Your task to perform on an android device: Show me popular videos on Youtube Image 0: 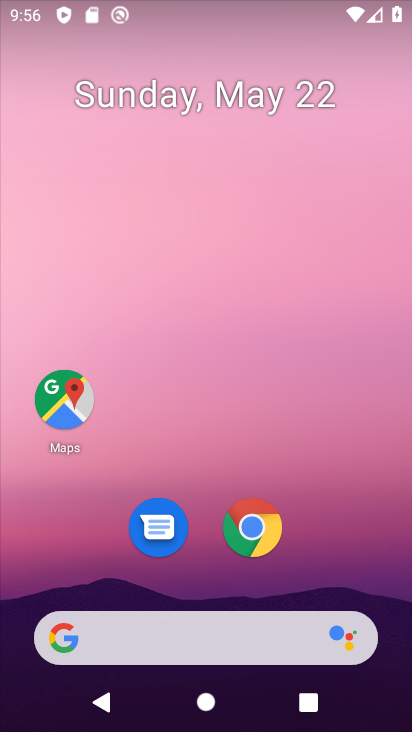
Step 0: drag from (362, 565) to (341, 139)
Your task to perform on an android device: Show me popular videos on Youtube Image 1: 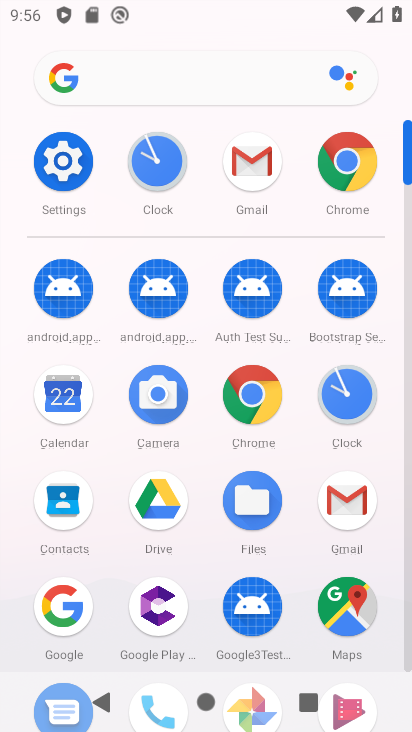
Step 1: click (409, 666)
Your task to perform on an android device: Show me popular videos on Youtube Image 2: 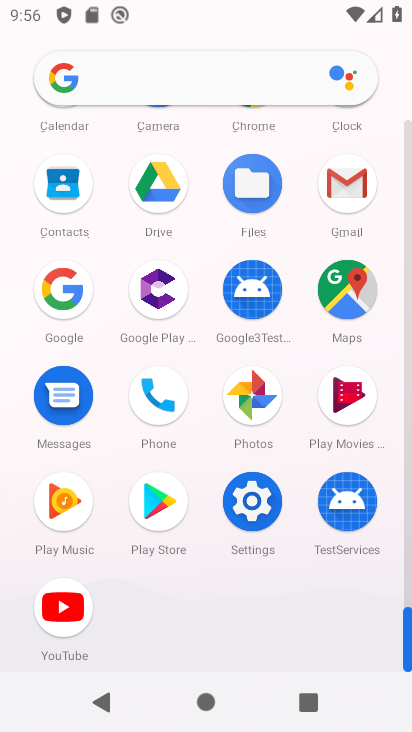
Step 2: click (409, 666)
Your task to perform on an android device: Show me popular videos on Youtube Image 3: 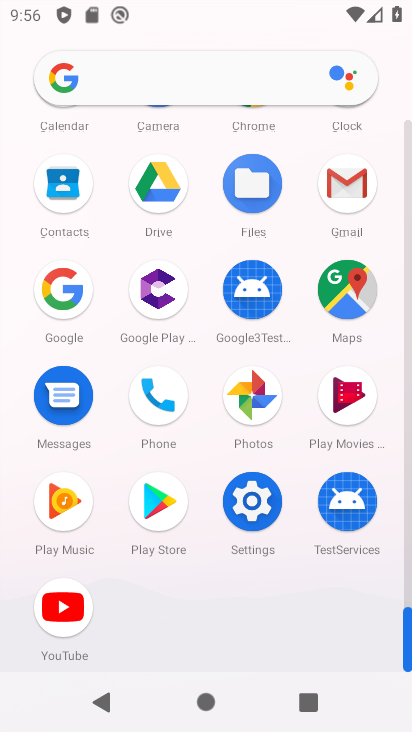
Step 3: click (54, 592)
Your task to perform on an android device: Show me popular videos on Youtube Image 4: 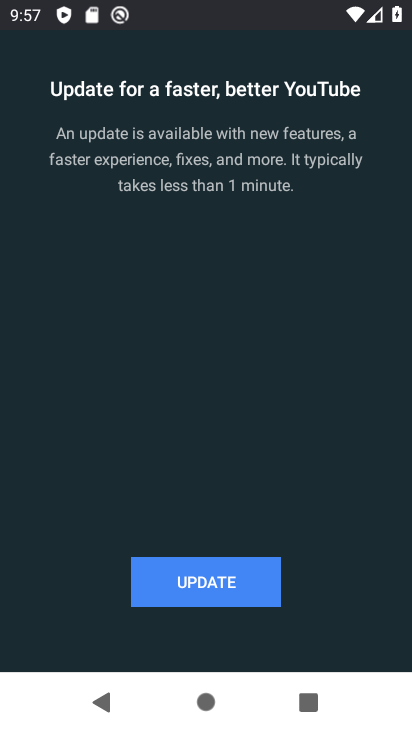
Step 4: click (189, 571)
Your task to perform on an android device: Show me popular videos on Youtube Image 5: 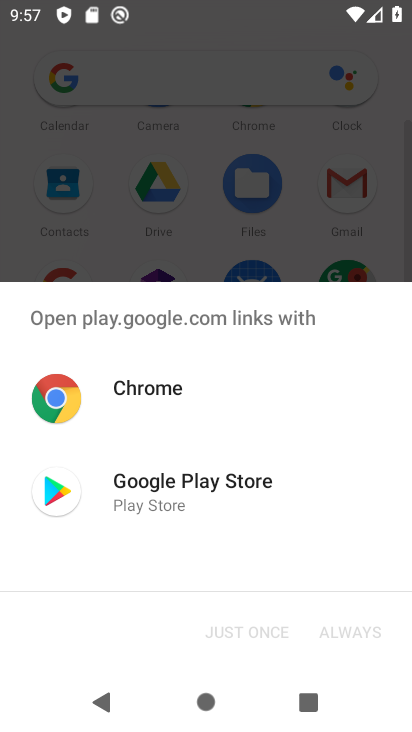
Step 5: click (157, 496)
Your task to perform on an android device: Show me popular videos on Youtube Image 6: 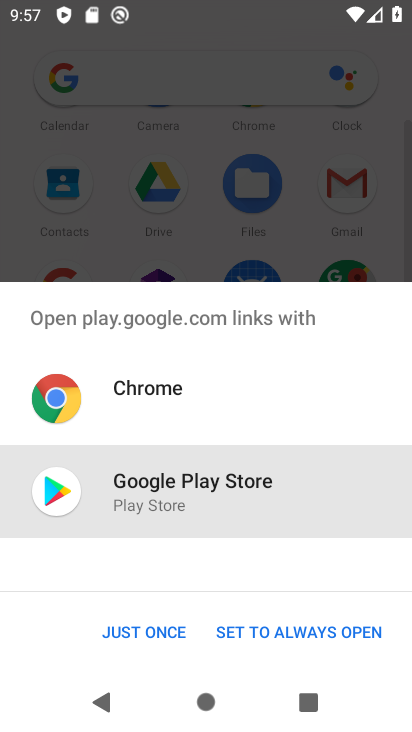
Step 6: click (128, 624)
Your task to perform on an android device: Show me popular videos on Youtube Image 7: 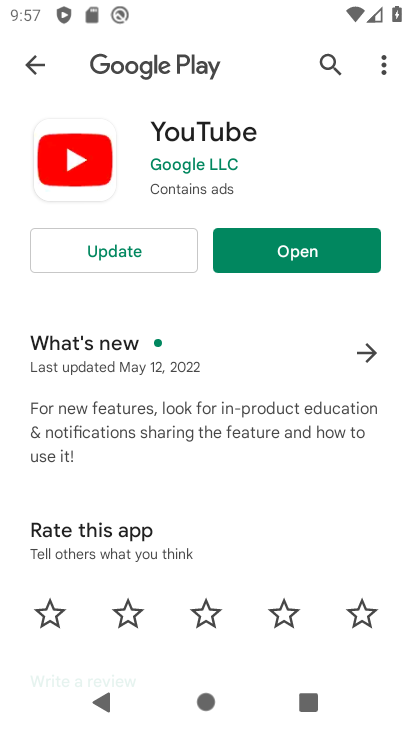
Step 7: click (158, 256)
Your task to perform on an android device: Show me popular videos on Youtube Image 8: 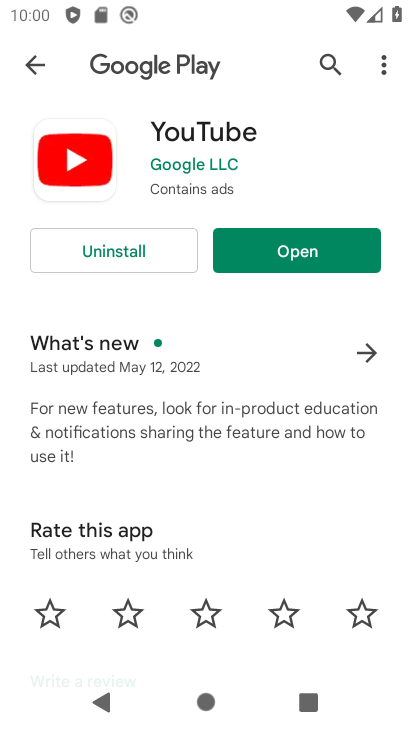
Step 8: click (288, 258)
Your task to perform on an android device: Show me popular videos on Youtube Image 9: 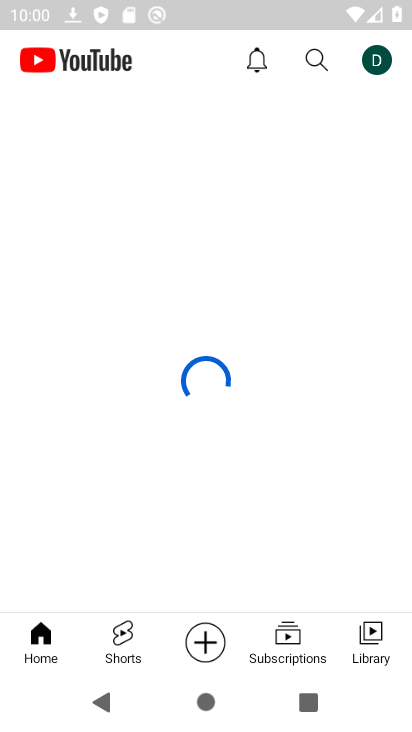
Step 9: task complete